Your task to perform on an android device: Open battery settings Image 0: 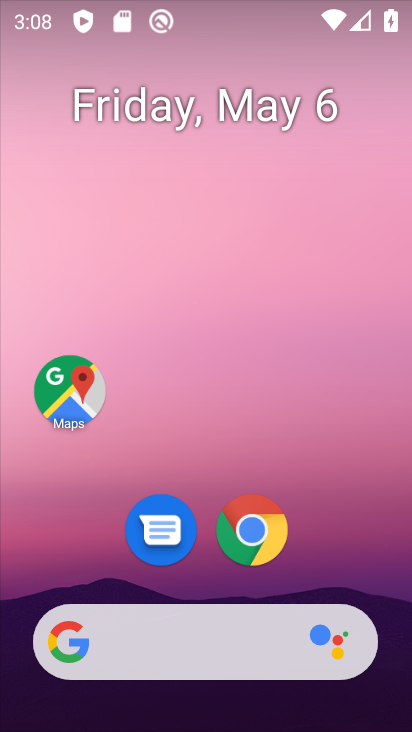
Step 0: drag from (189, 670) to (325, 12)
Your task to perform on an android device: Open battery settings Image 1: 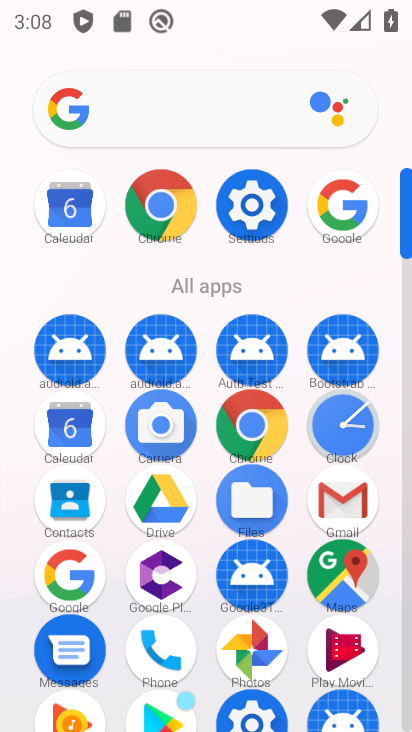
Step 1: click (269, 207)
Your task to perform on an android device: Open battery settings Image 2: 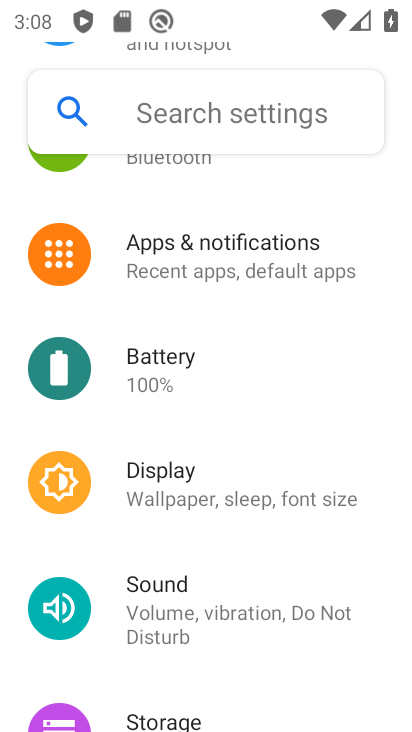
Step 2: click (184, 365)
Your task to perform on an android device: Open battery settings Image 3: 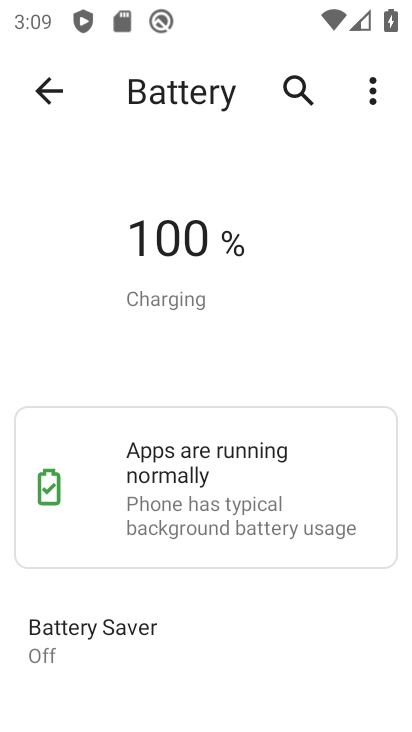
Step 3: task complete